Your task to perform on an android device: Open ESPN.com Image 0: 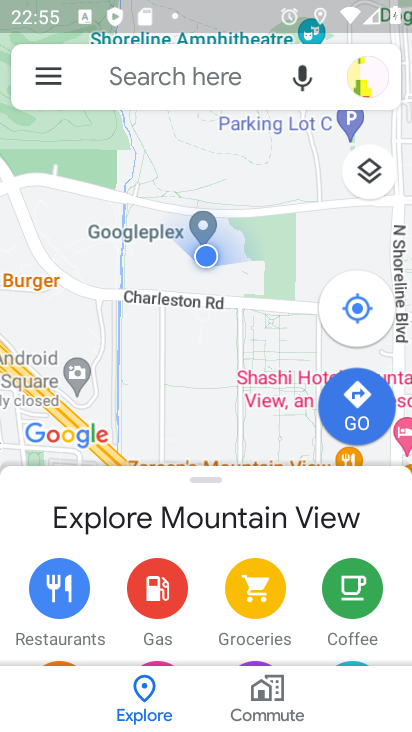
Step 0: press home button
Your task to perform on an android device: Open ESPN.com Image 1: 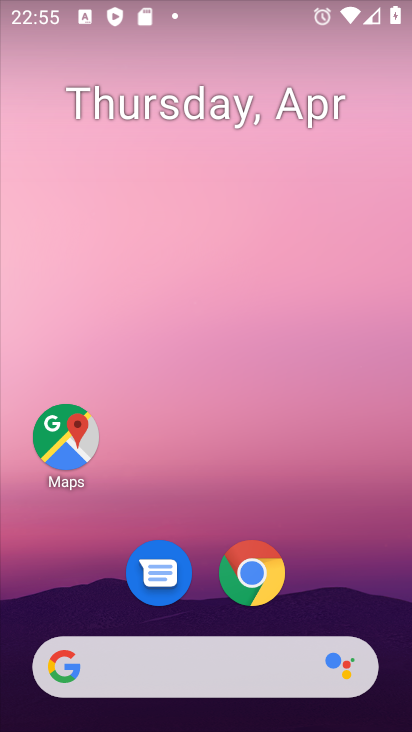
Step 1: click (255, 566)
Your task to perform on an android device: Open ESPN.com Image 2: 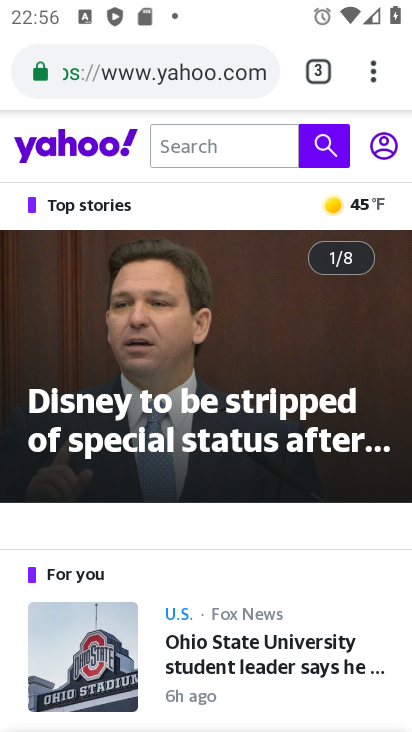
Step 2: click (312, 67)
Your task to perform on an android device: Open ESPN.com Image 3: 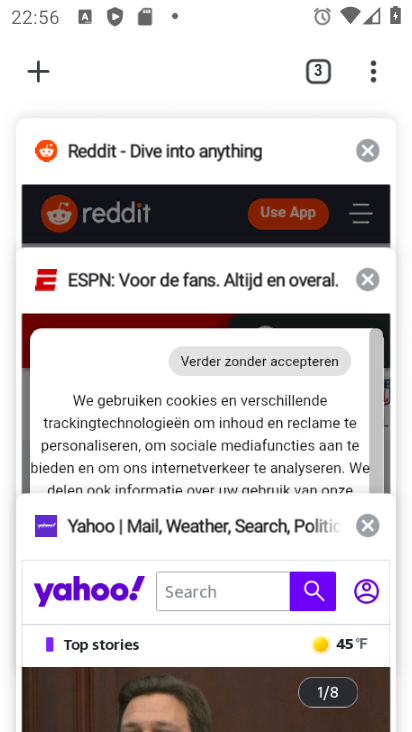
Step 3: click (40, 75)
Your task to perform on an android device: Open ESPN.com Image 4: 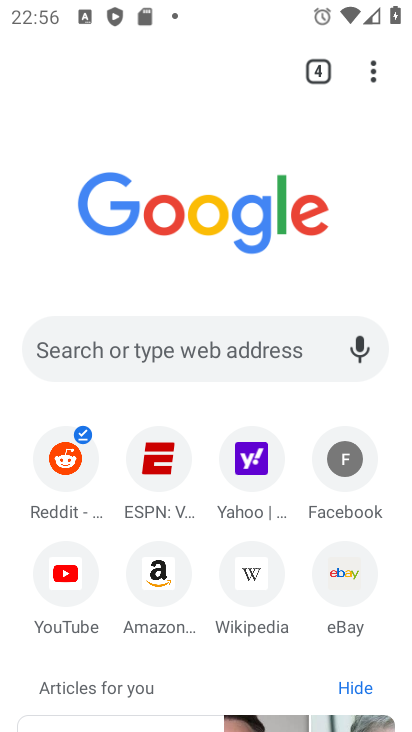
Step 4: click (163, 458)
Your task to perform on an android device: Open ESPN.com Image 5: 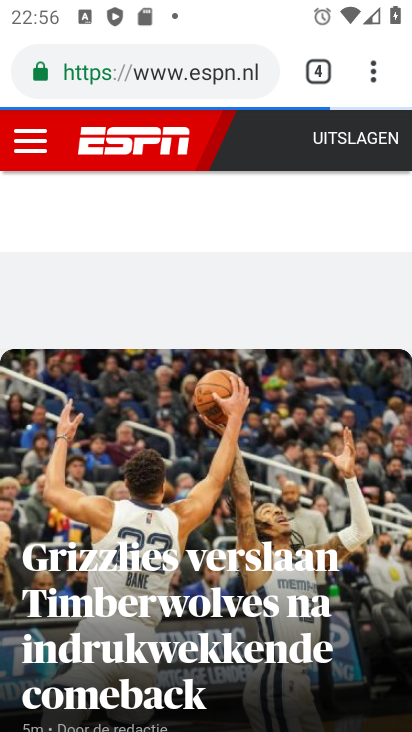
Step 5: task complete